Your task to perform on an android device: Open ESPN.com Image 0: 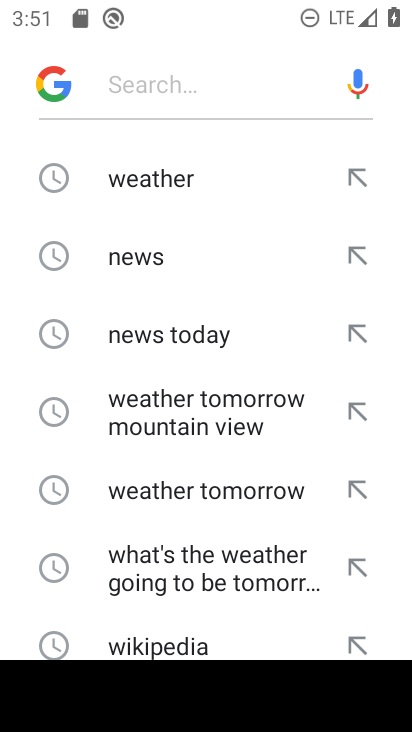
Step 0: press home button
Your task to perform on an android device: Open ESPN.com Image 1: 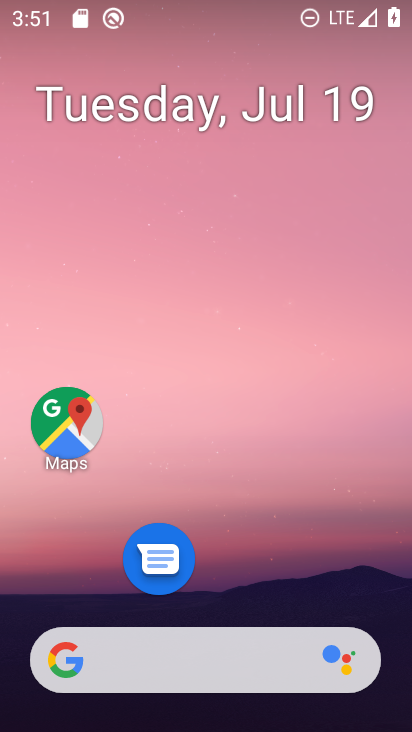
Step 1: drag from (250, 657) to (327, 278)
Your task to perform on an android device: Open ESPN.com Image 2: 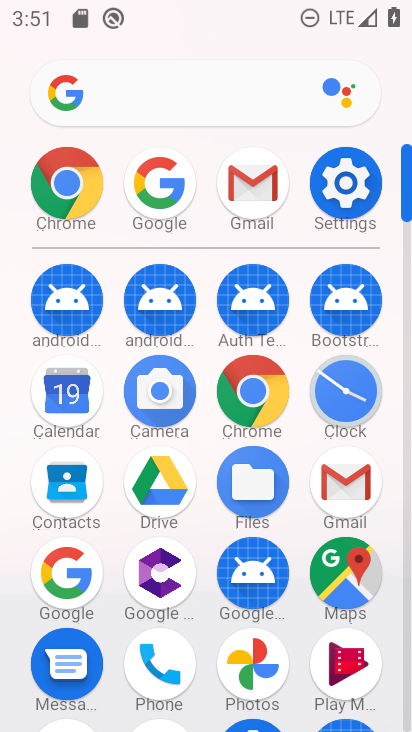
Step 2: click (70, 206)
Your task to perform on an android device: Open ESPN.com Image 3: 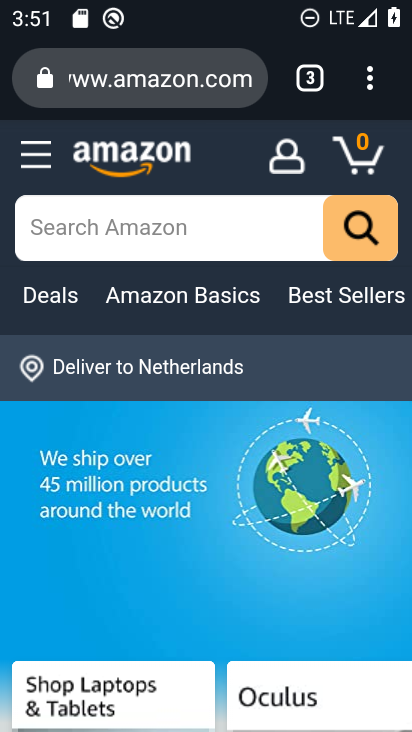
Step 3: click (134, 88)
Your task to perform on an android device: Open ESPN.com Image 4: 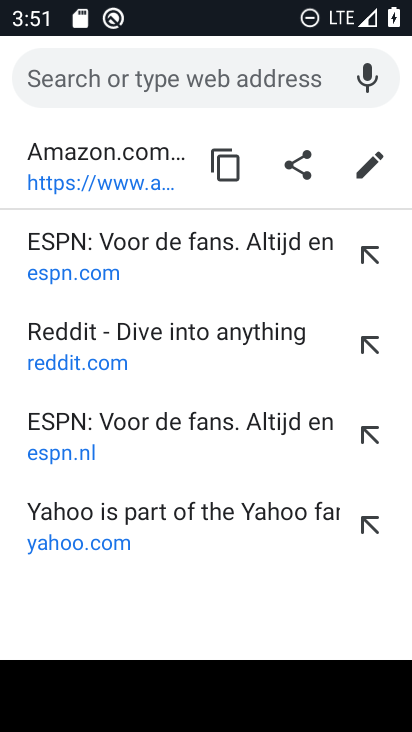
Step 4: click (140, 280)
Your task to perform on an android device: Open ESPN.com Image 5: 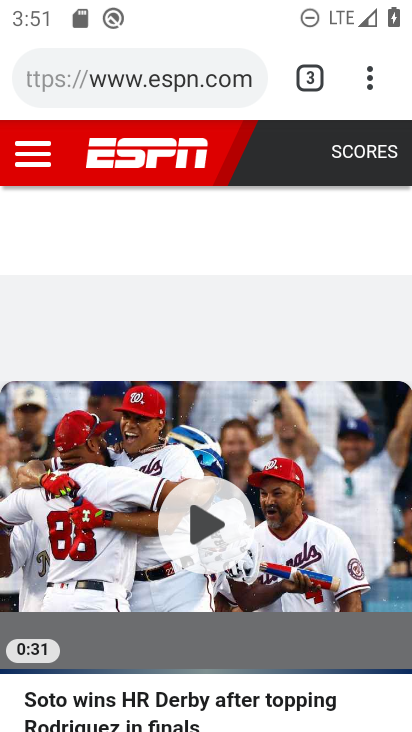
Step 5: task complete